Your task to perform on an android device: toggle notifications settings in the gmail app Image 0: 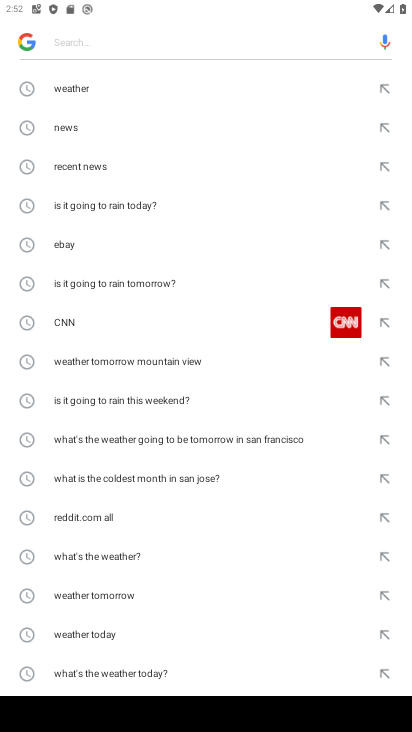
Step 0: press home button
Your task to perform on an android device: toggle notifications settings in the gmail app Image 1: 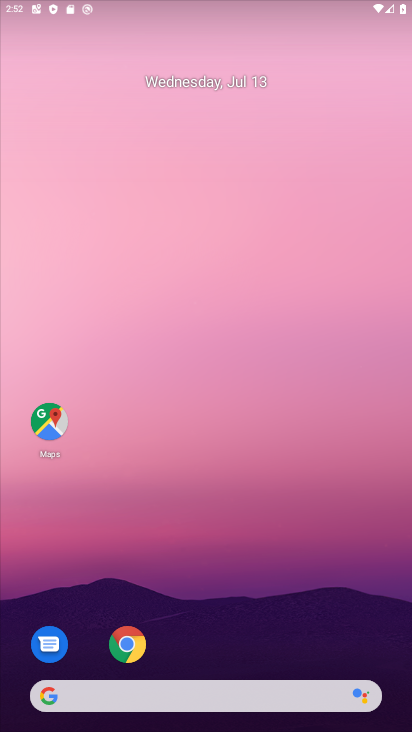
Step 1: drag from (331, 648) to (202, 138)
Your task to perform on an android device: toggle notifications settings in the gmail app Image 2: 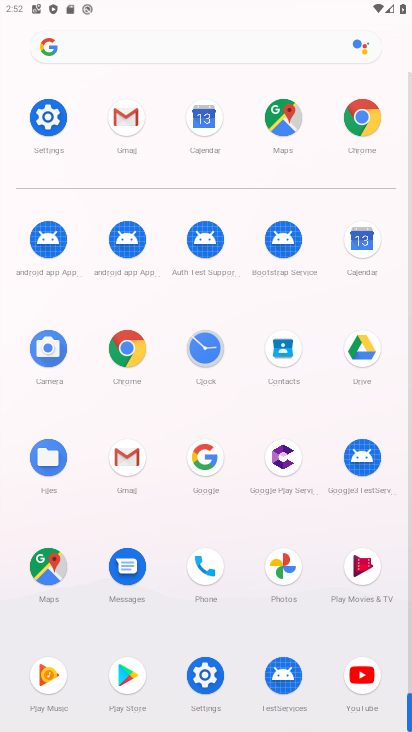
Step 2: click (142, 112)
Your task to perform on an android device: toggle notifications settings in the gmail app Image 3: 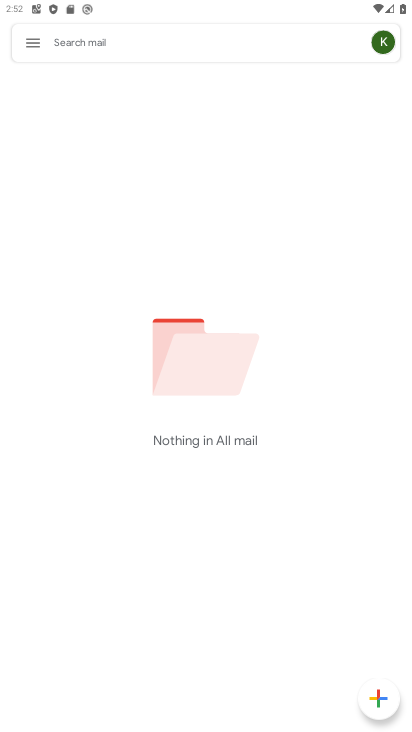
Step 3: click (36, 49)
Your task to perform on an android device: toggle notifications settings in the gmail app Image 4: 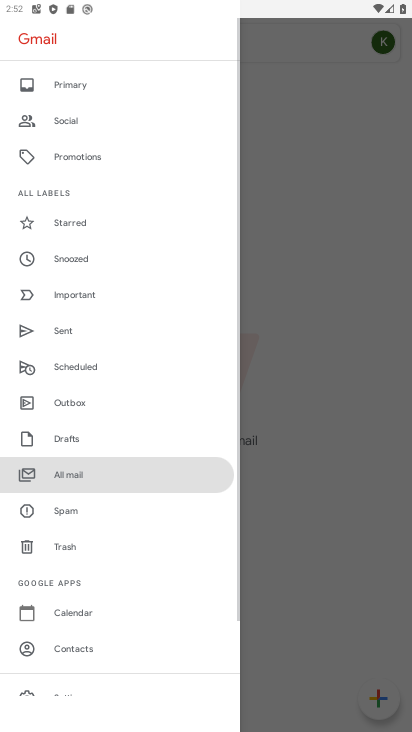
Step 4: drag from (98, 636) to (130, 118)
Your task to perform on an android device: toggle notifications settings in the gmail app Image 5: 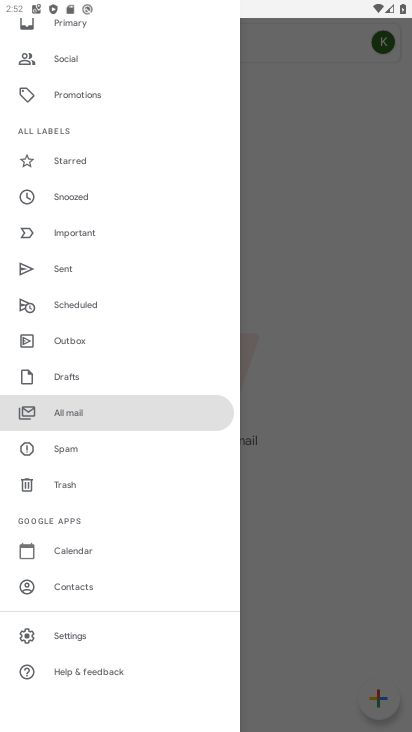
Step 5: click (79, 642)
Your task to perform on an android device: toggle notifications settings in the gmail app Image 6: 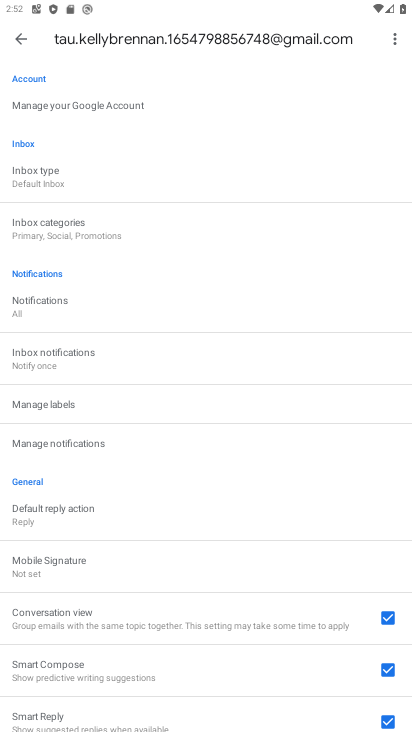
Step 6: click (101, 448)
Your task to perform on an android device: toggle notifications settings in the gmail app Image 7: 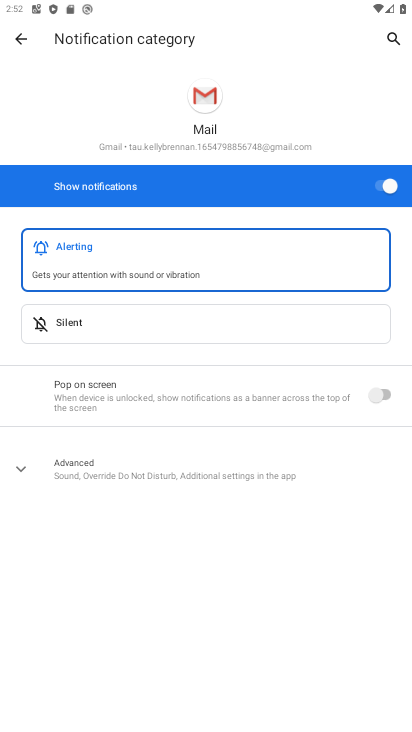
Step 7: task complete